Your task to perform on an android device: toggle data saver in the chrome app Image 0: 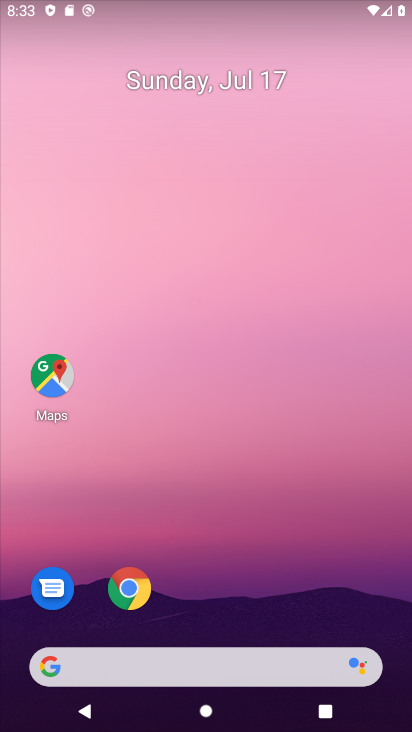
Step 0: click (125, 583)
Your task to perform on an android device: toggle data saver in the chrome app Image 1: 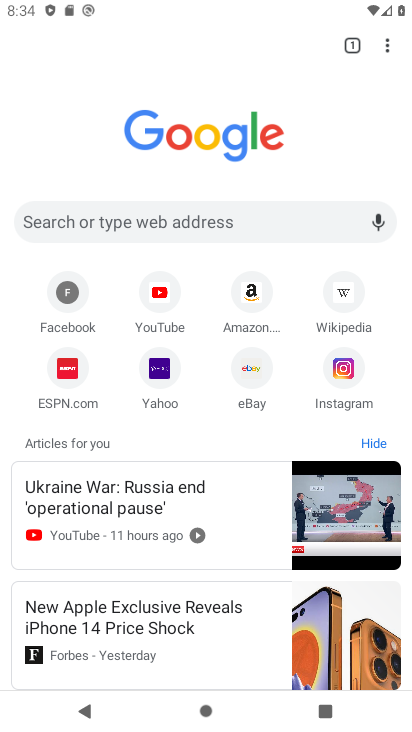
Step 1: drag from (386, 45) to (216, 374)
Your task to perform on an android device: toggle data saver in the chrome app Image 2: 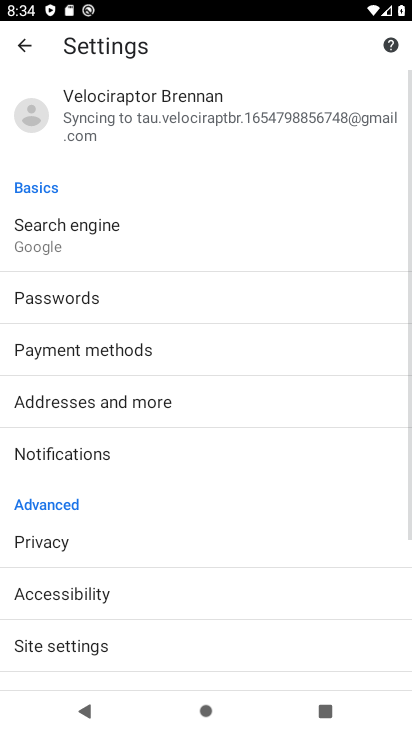
Step 2: drag from (223, 535) to (223, 151)
Your task to perform on an android device: toggle data saver in the chrome app Image 3: 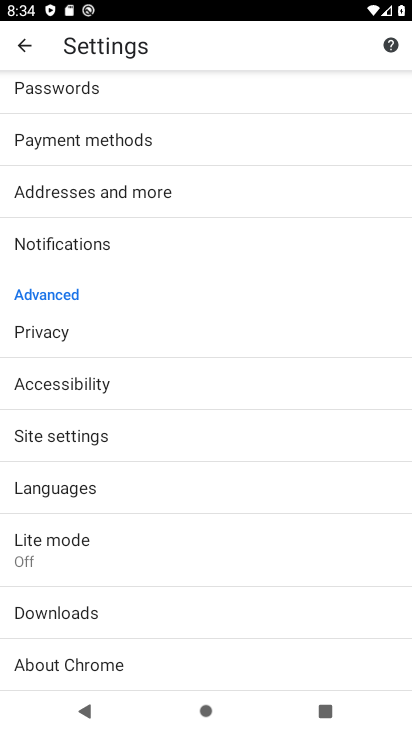
Step 3: click (43, 523)
Your task to perform on an android device: toggle data saver in the chrome app Image 4: 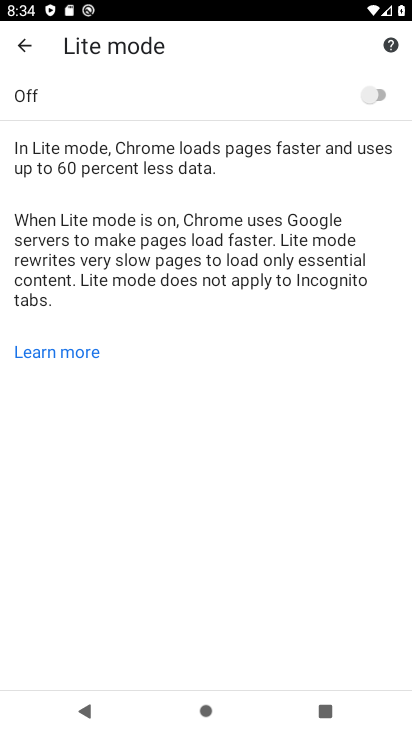
Step 4: click (381, 93)
Your task to perform on an android device: toggle data saver in the chrome app Image 5: 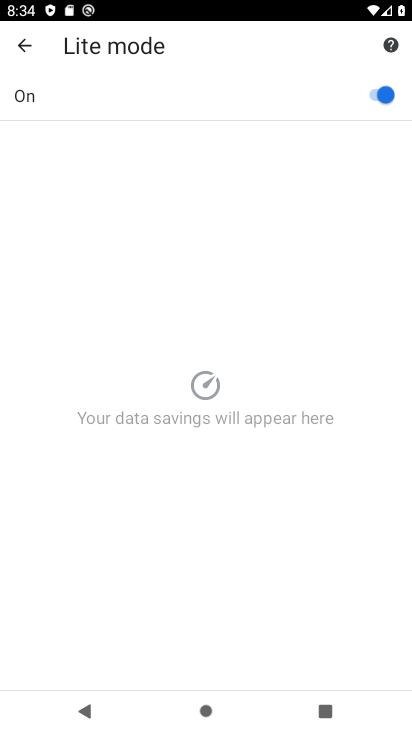
Step 5: task complete